Your task to perform on an android device: Open calendar and show me the first week of next month Image 0: 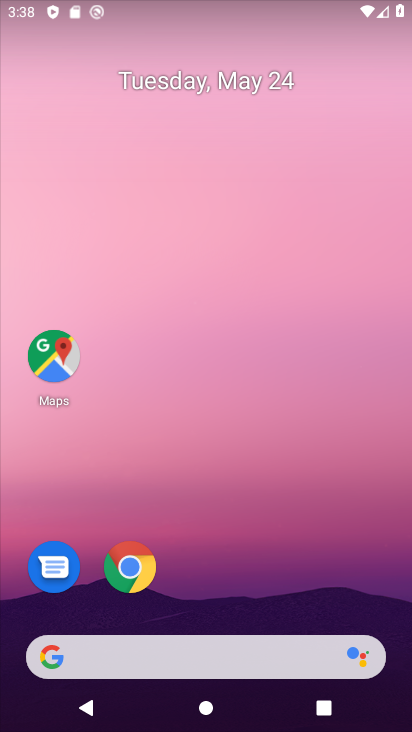
Step 0: drag from (229, 621) to (310, 2)
Your task to perform on an android device: Open calendar and show me the first week of next month Image 1: 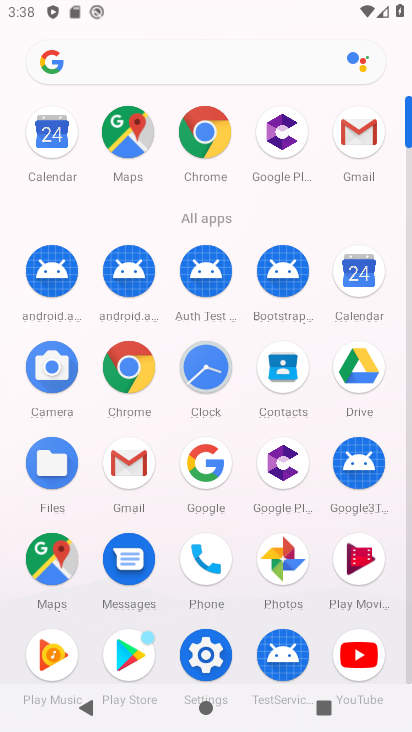
Step 1: click (370, 297)
Your task to perform on an android device: Open calendar and show me the first week of next month Image 2: 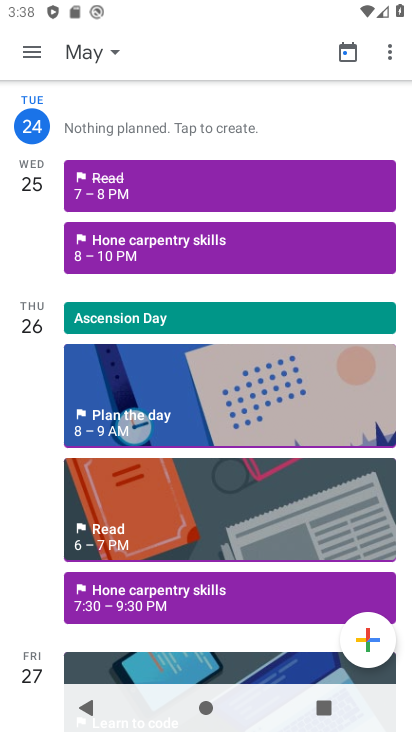
Step 2: click (34, 44)
Your task to perform on an android device: Open calendar and show me the first week of next month Image 3: 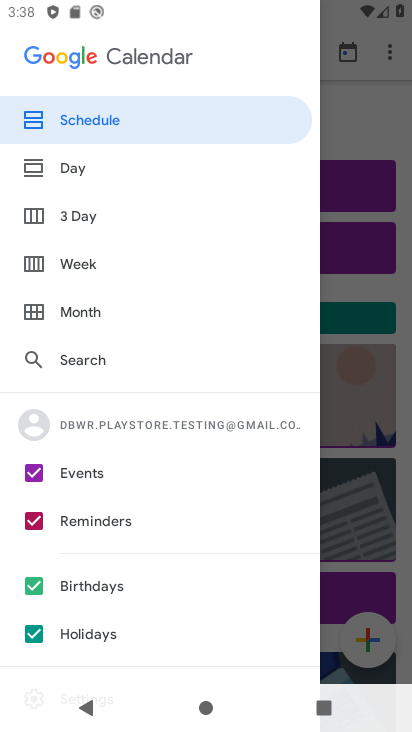
Step 3: click (97, 269)
Your task to perform on an android device: Open calendar and show me the first week of next month Image 4: 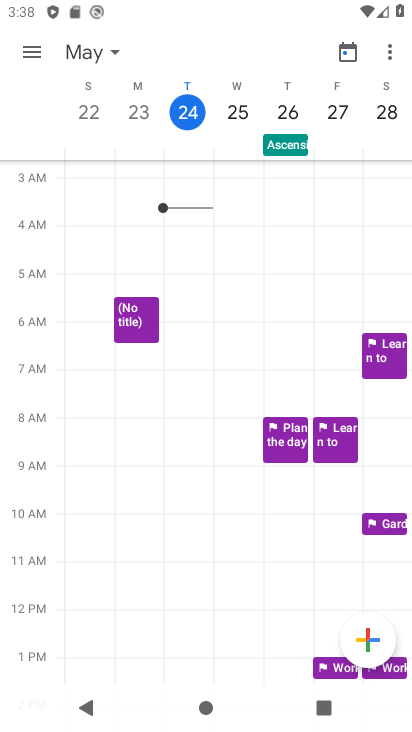
Step 4: task complete